Your task to perform on an android device: Go to ESPN.com Image 0: 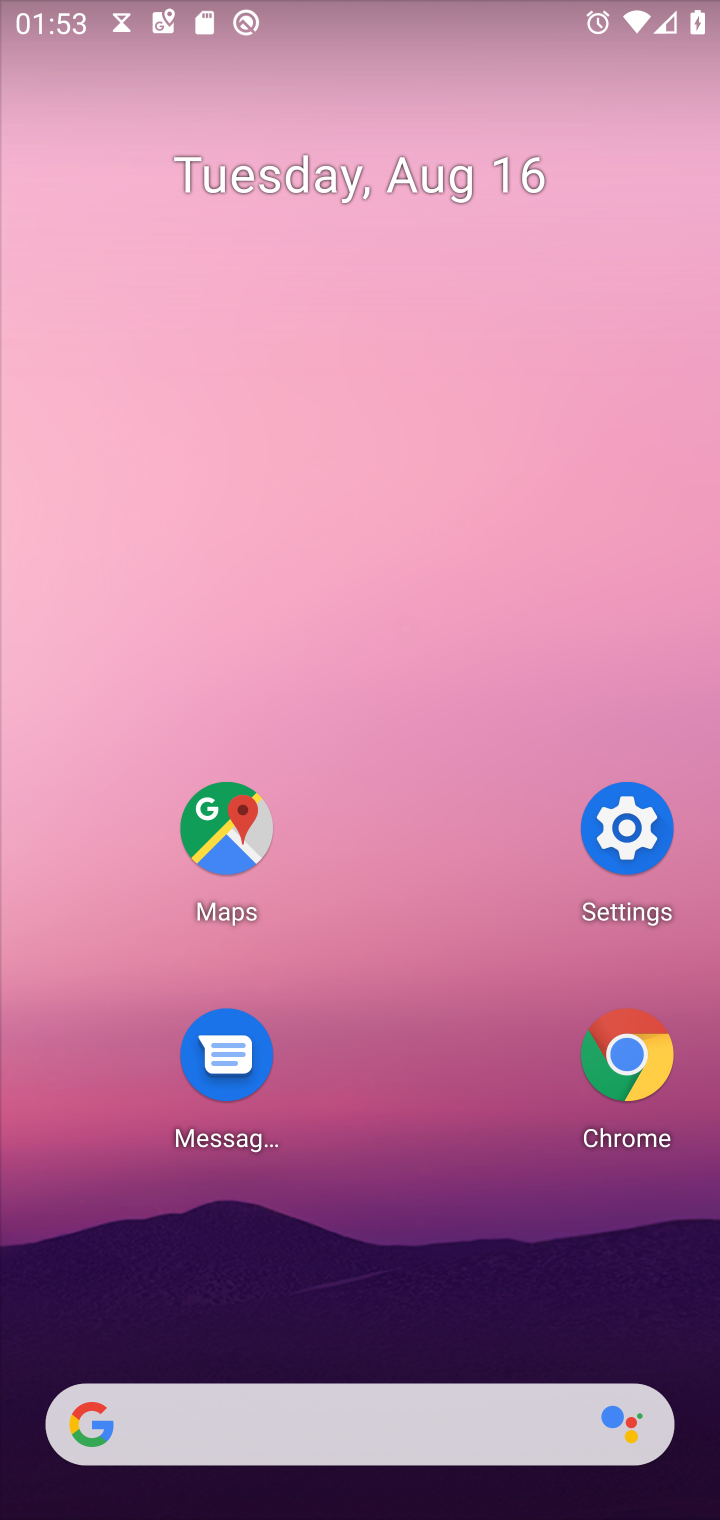
Step 0: press home button
Your task to perform on an android device: Go to ESPN.com Image 1: 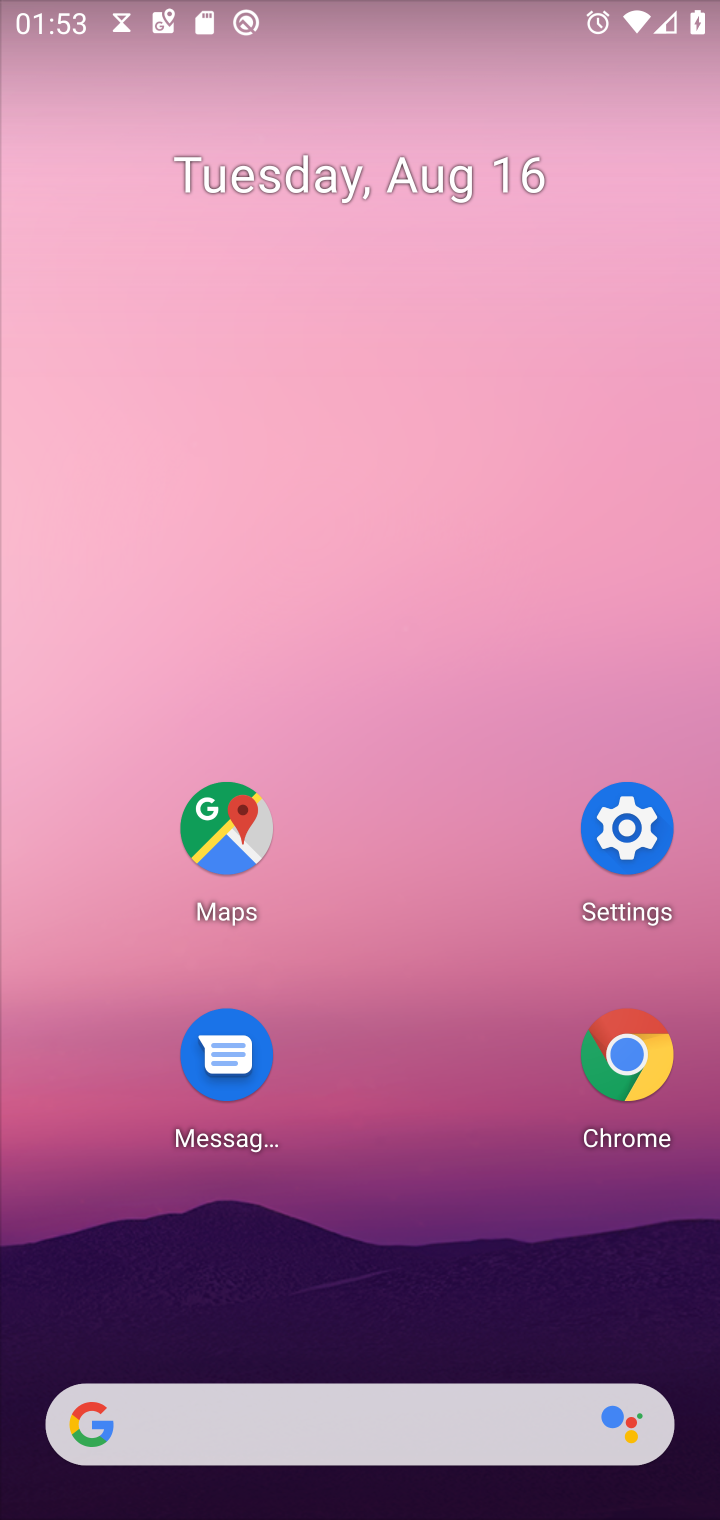
Step 1: press home button
Your task to perform on an android device: Go to ESPN.com Image 2: 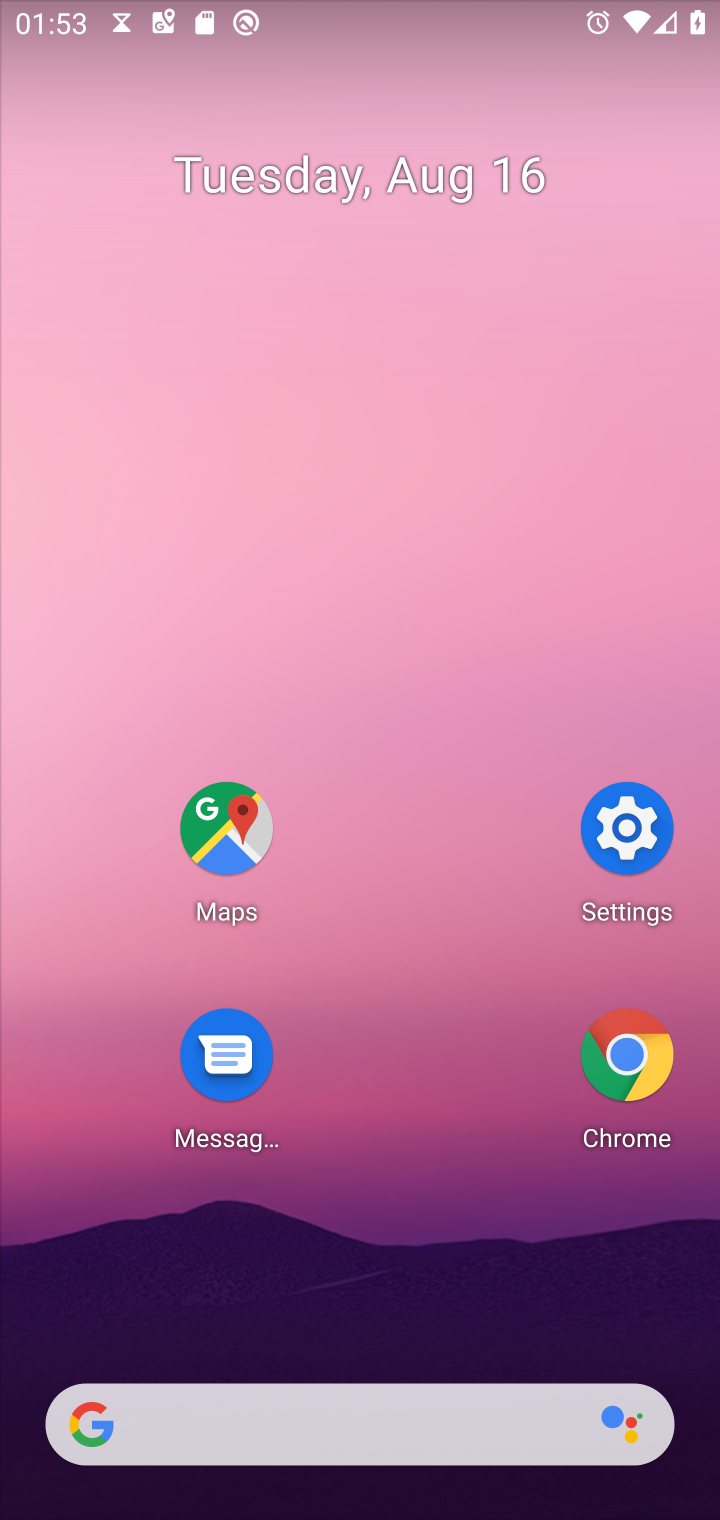
Step 2: click (284, 1425)
Your task to perform on an android device: Go to ESPN.com Image 3: 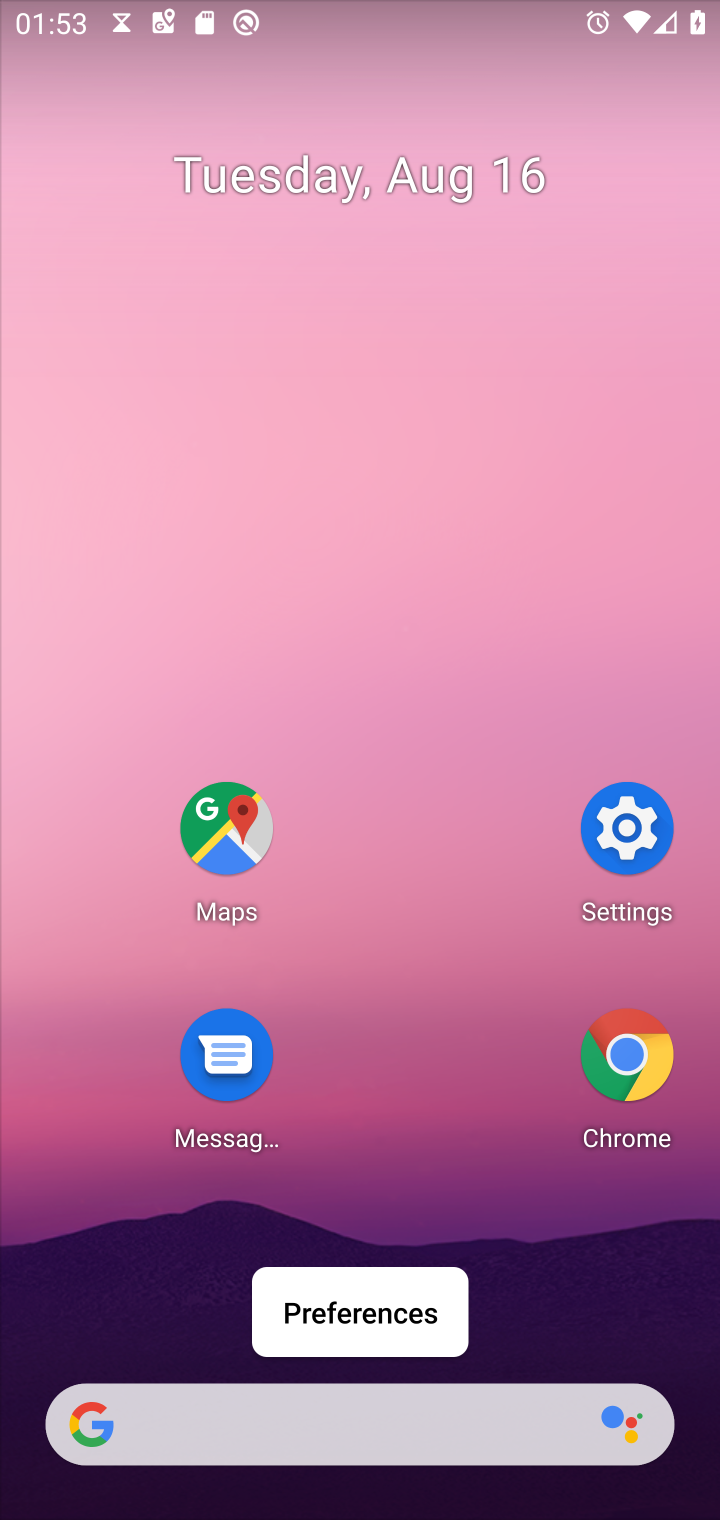
Step 3: click (617, 1057)
Your task to perform on an android device: Go to ESPN.com Image 4: 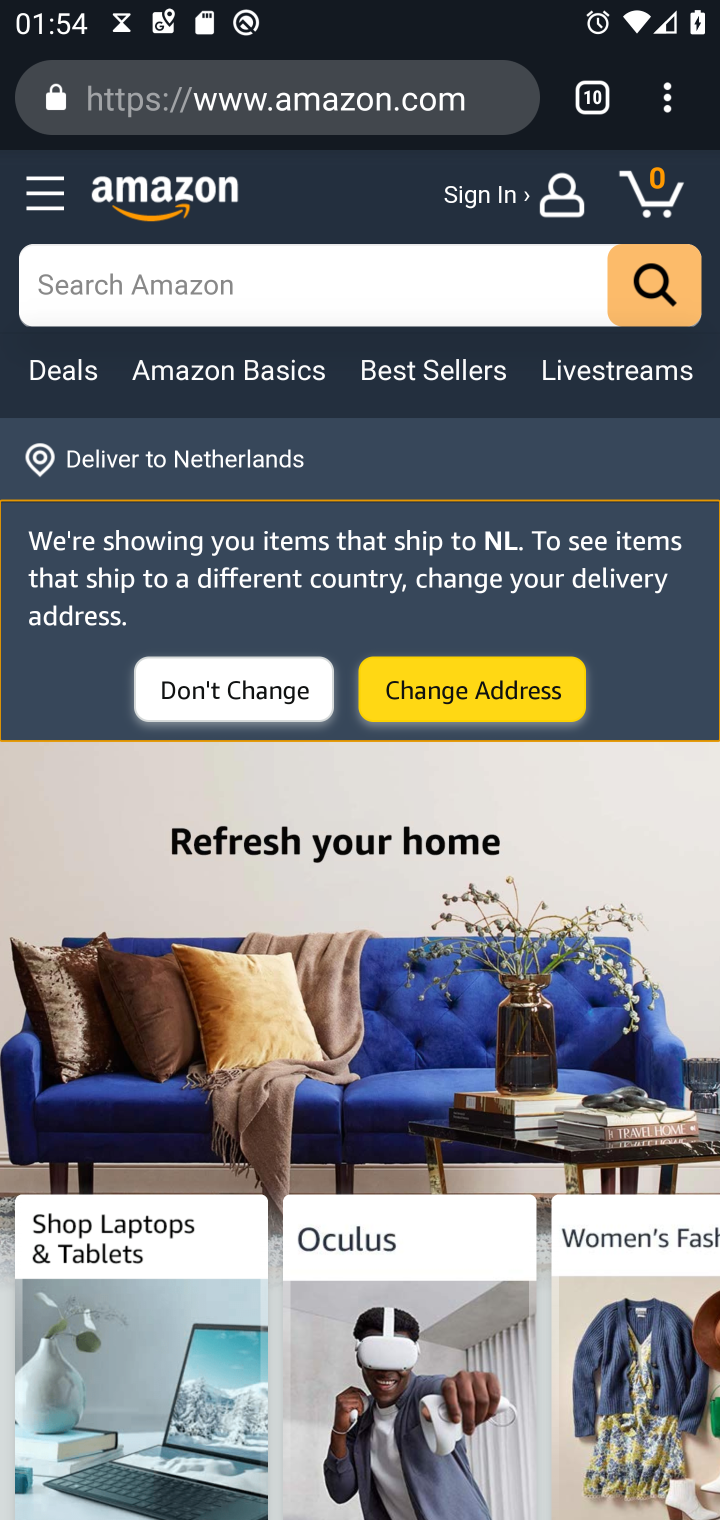
Step 4: drag from (668, 88) to (489, 201)
Your task to perform on an android device: Go to ESPN.com Image 5: 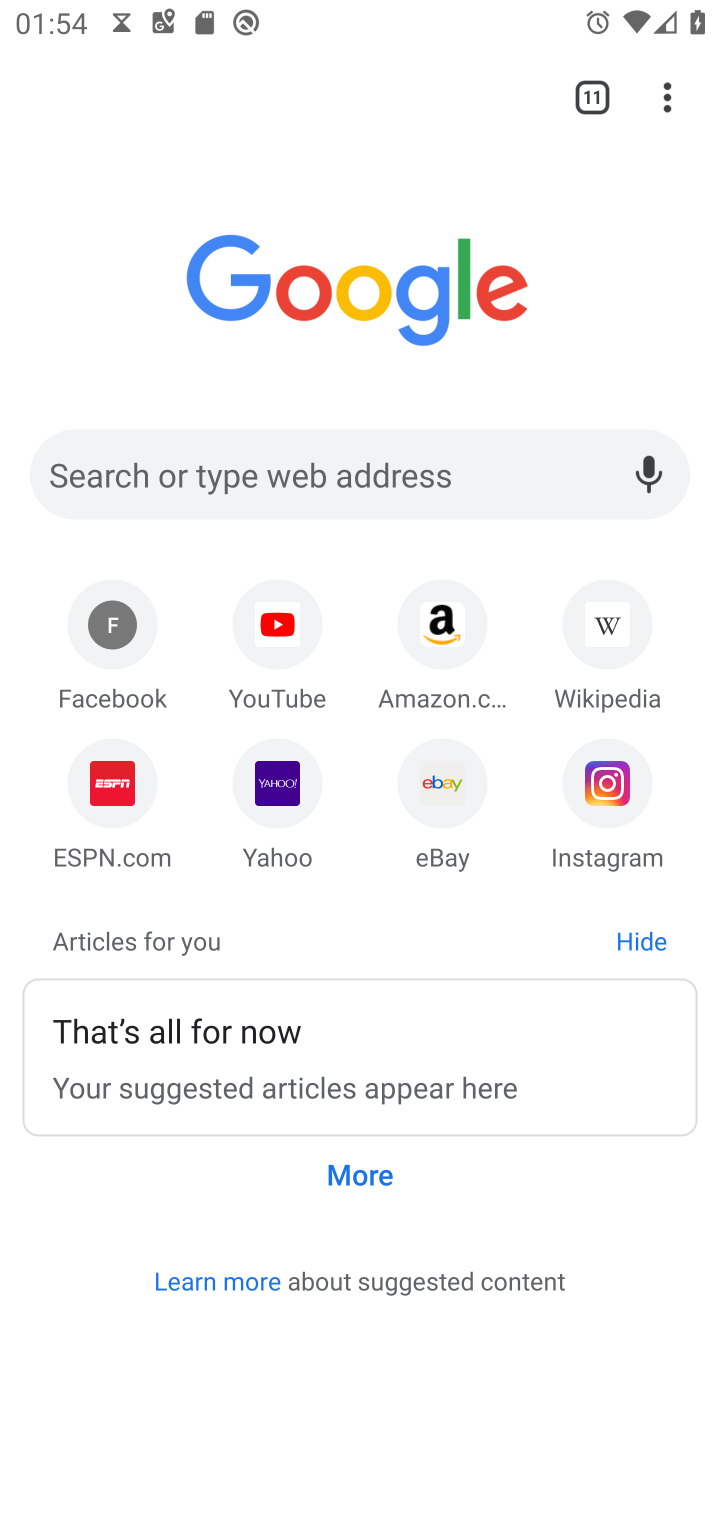
Step 5: click (84, 784)
Your task to perform on an android device: Go to ESPN.com Image 6: 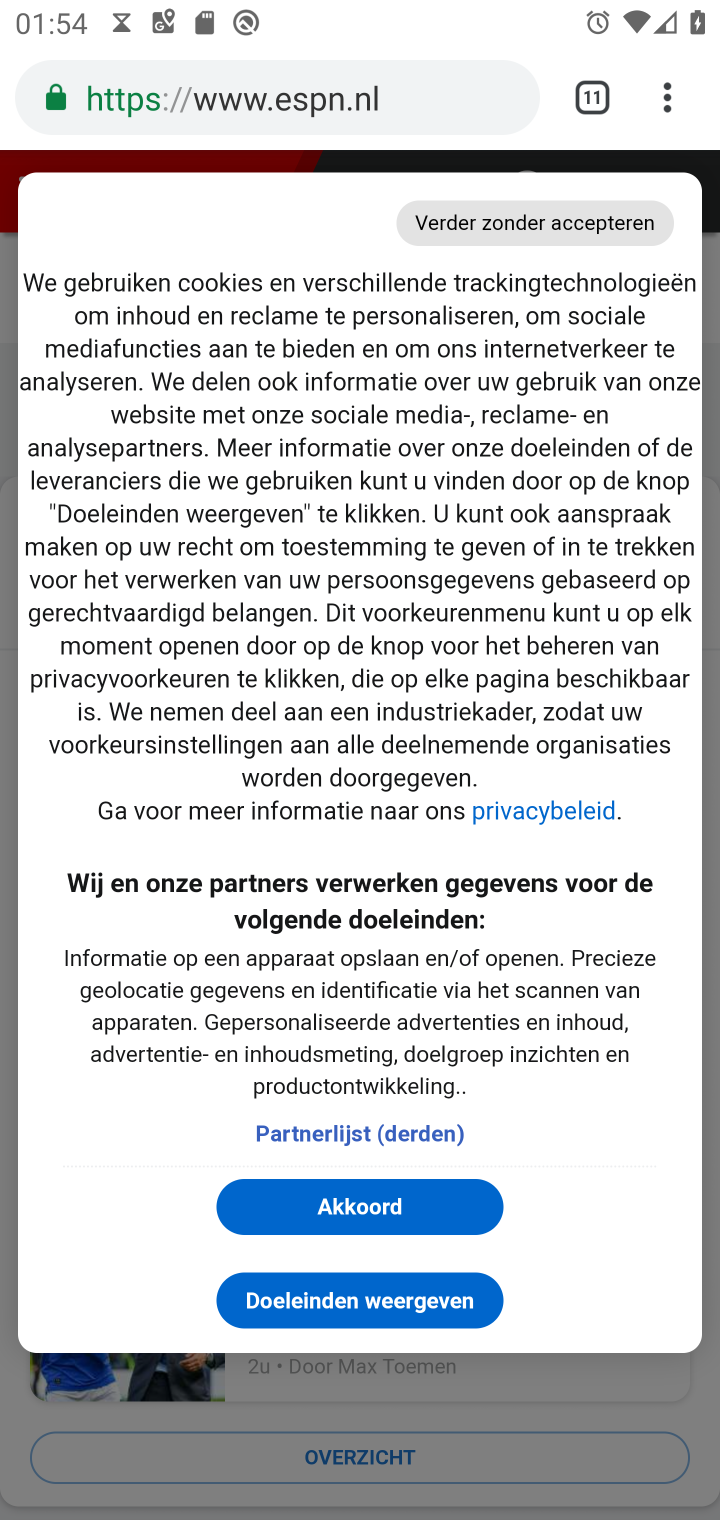
Step 6: click (403, 1204)
Your task to perform on an android device: Go to ESPN.com Image 7: 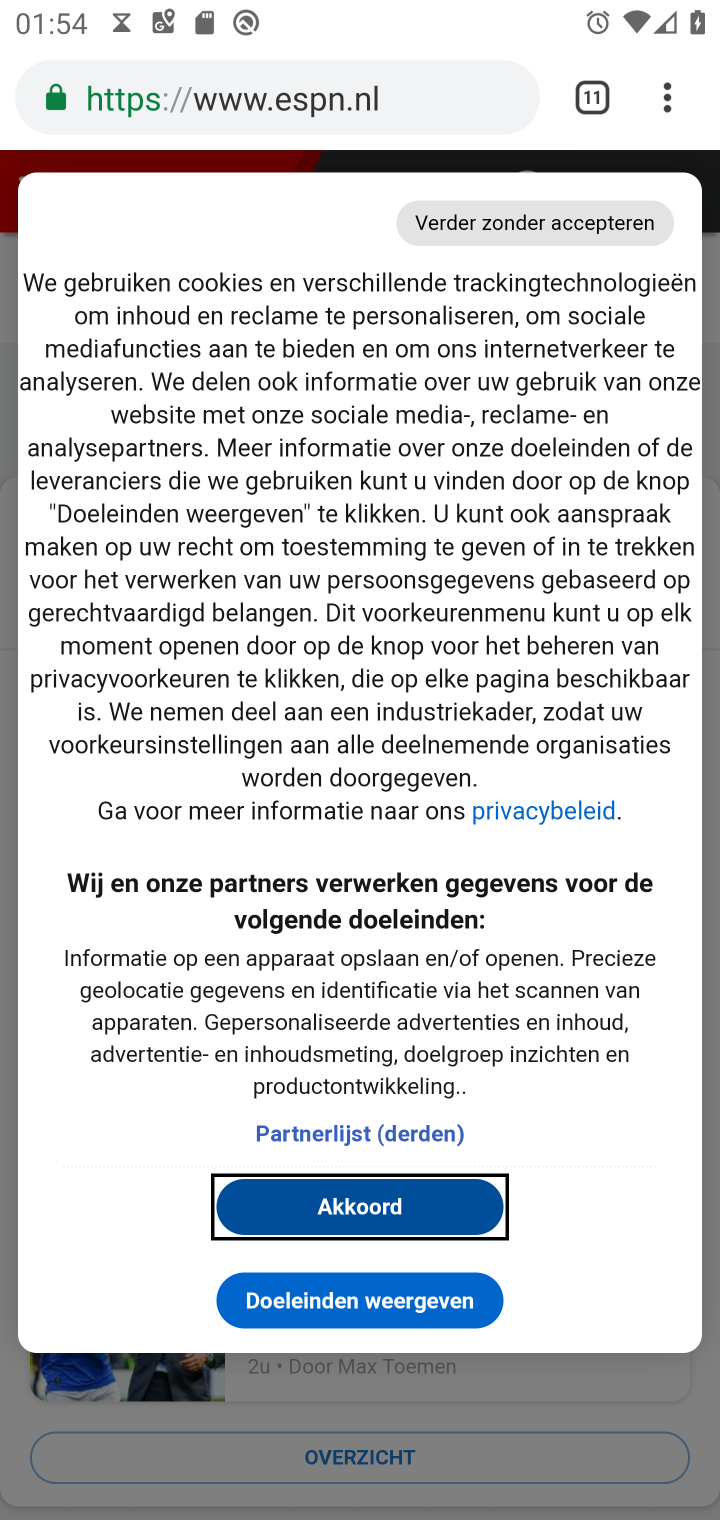
Step 7: click (327, 1207)
Your task to perform on an android device: Go to ESPN.com Image 8: 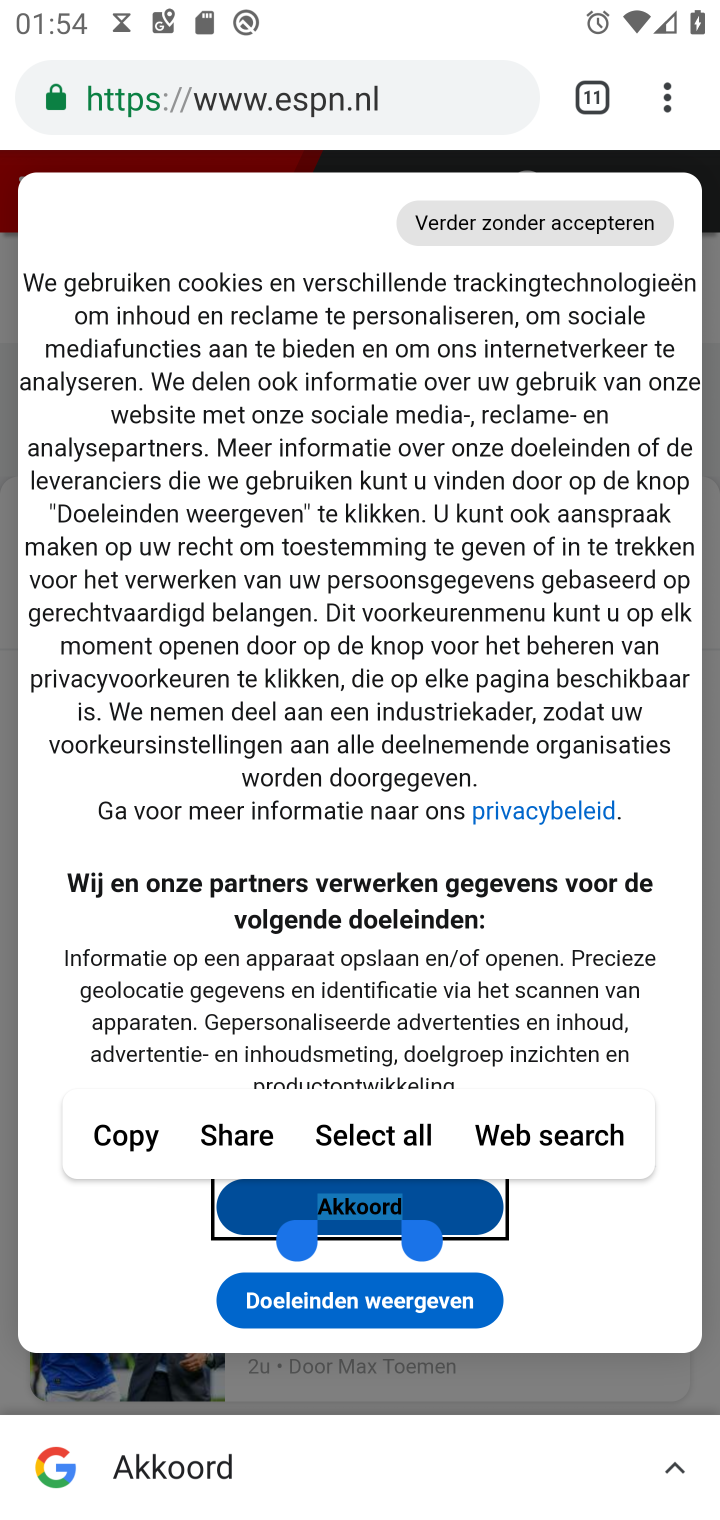
Step 8: task complete